Your task to perform on an android device: toggle data saver in the chrome app Image 0: 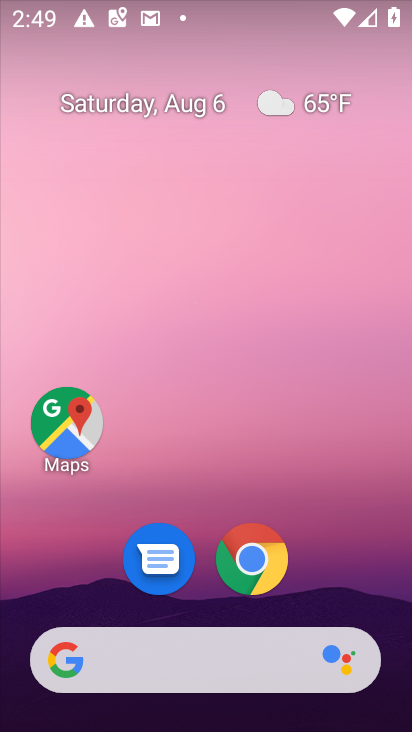
Step 0: click (262, 559)
Your task to perform on an android device: toggle data saver in the chrome app Image 1: 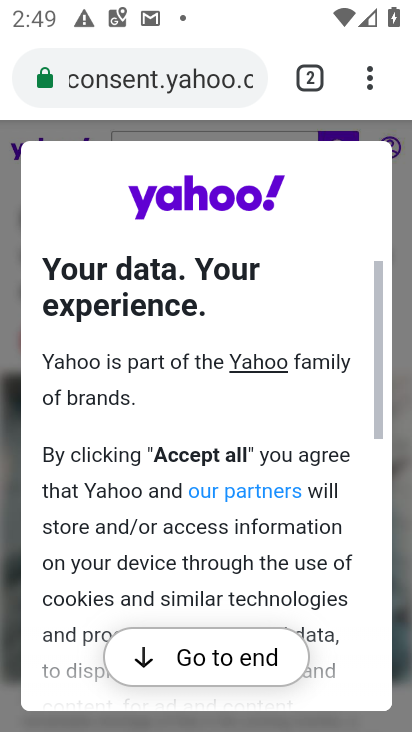
Step 1: click (378, 81)
Your task to perform on an android device: toggle data saver in the chrome app Image 2: 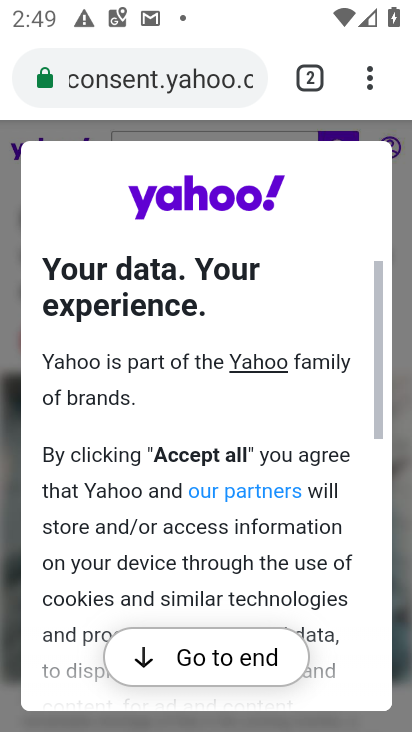
Step 2: drag from (368, 79) to (126, 584)
Your task to perform on an android device: toggle data saver in the chrome app Image 3: 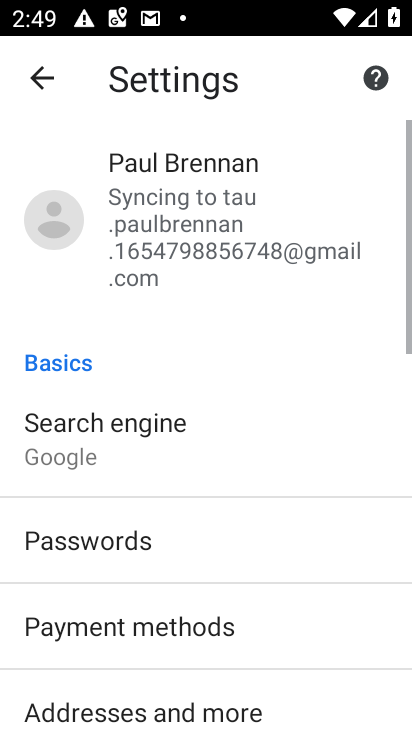
Step 3: drag from (199, 625) to (226, 226)
Your task to perform on an android device: toggle data saver in the chrome app Image 4: 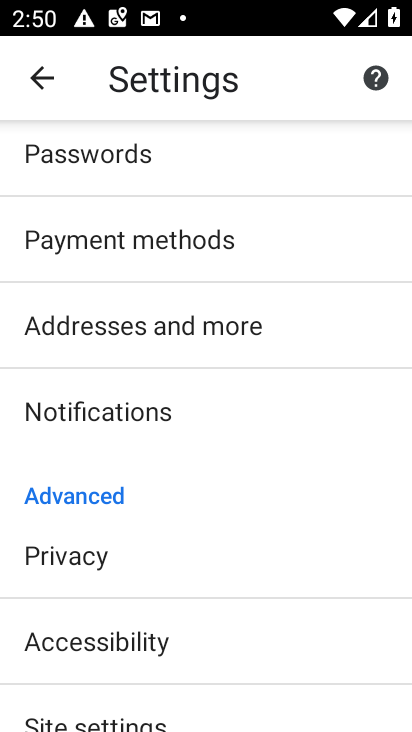
Step 4: drag from (211, 596) to (211, 283)
Your task to perform on an android device: toggle data saver in the chrome app Image 5: 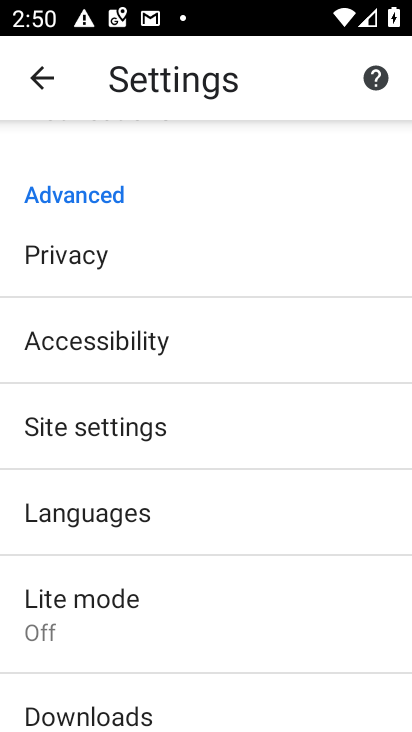
Step 5: click (123, 607)
Your task to perform on an android device: toggle data saver in the chrome app Image 6: 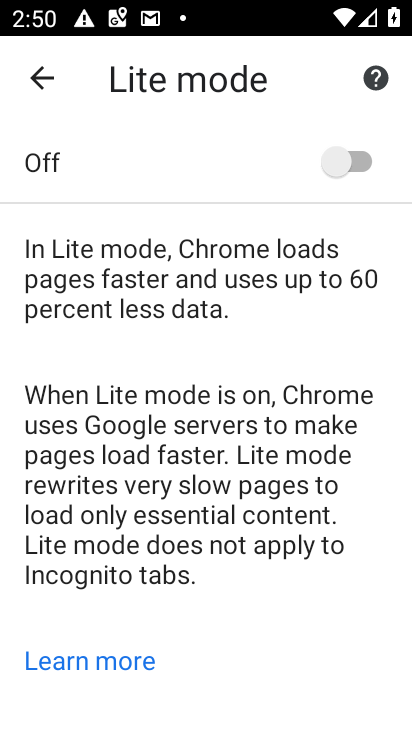
Step 6: click (352, 167)
Your task to perform on an android device: toggle data saver in the chrome app Image 7: 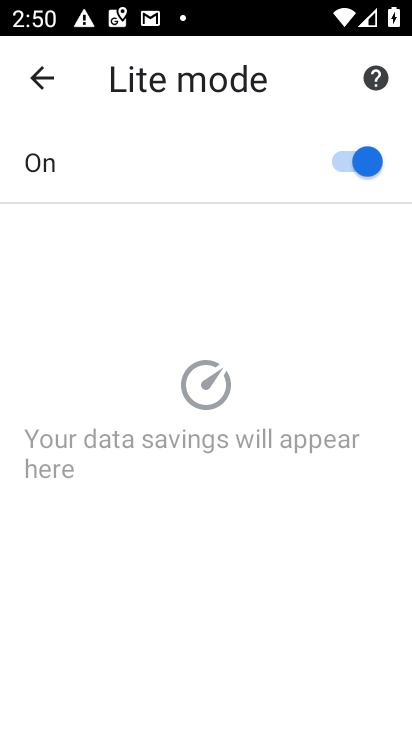
Step 7: task complete